Your task to perform on an android device: Search for logitech g910 on target.com, select the first entry, and add it to the cart. Image 0: 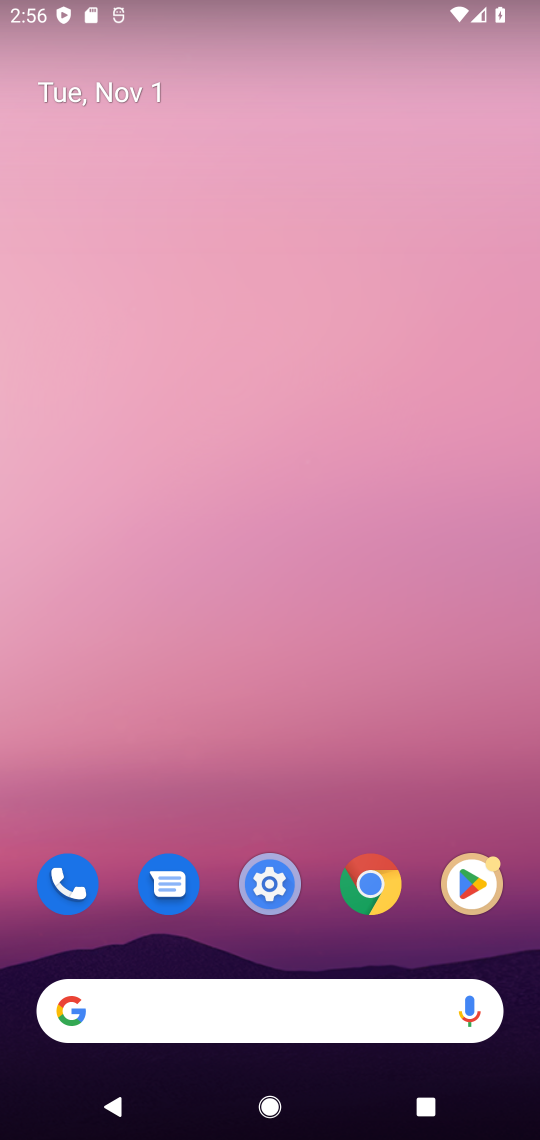
Step 0: click (378, 896)
Your task to perform on an android device: Search for logitech g910 on target.com, select the first entry, and add it to the cart. Image 1: 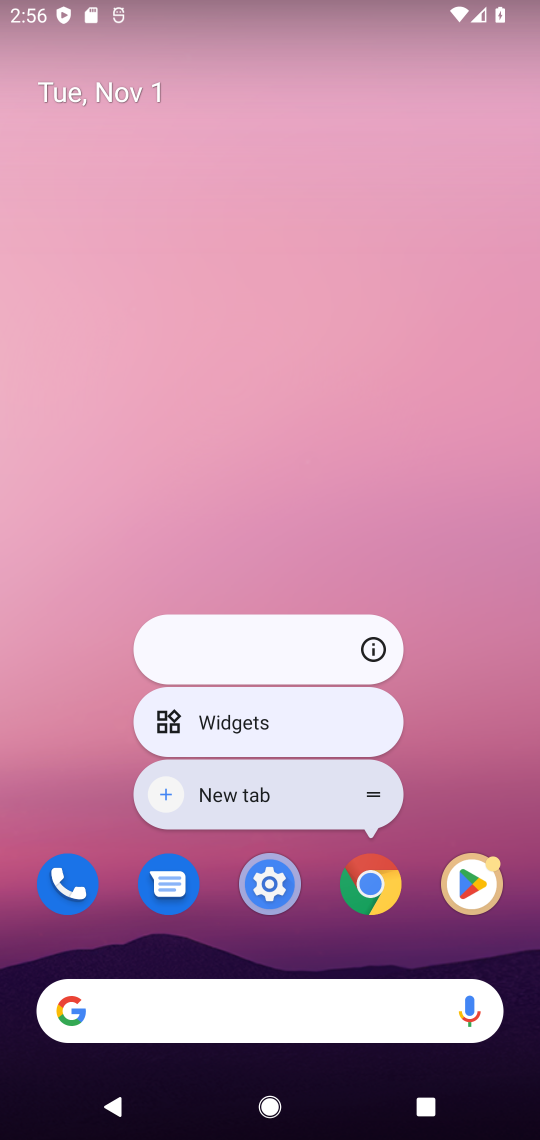
Step 1: click (379, 896)
Your task to perform on an android device: Search for logitech g910 on target.com, select the first entry, and add it to the cart. Image 2: 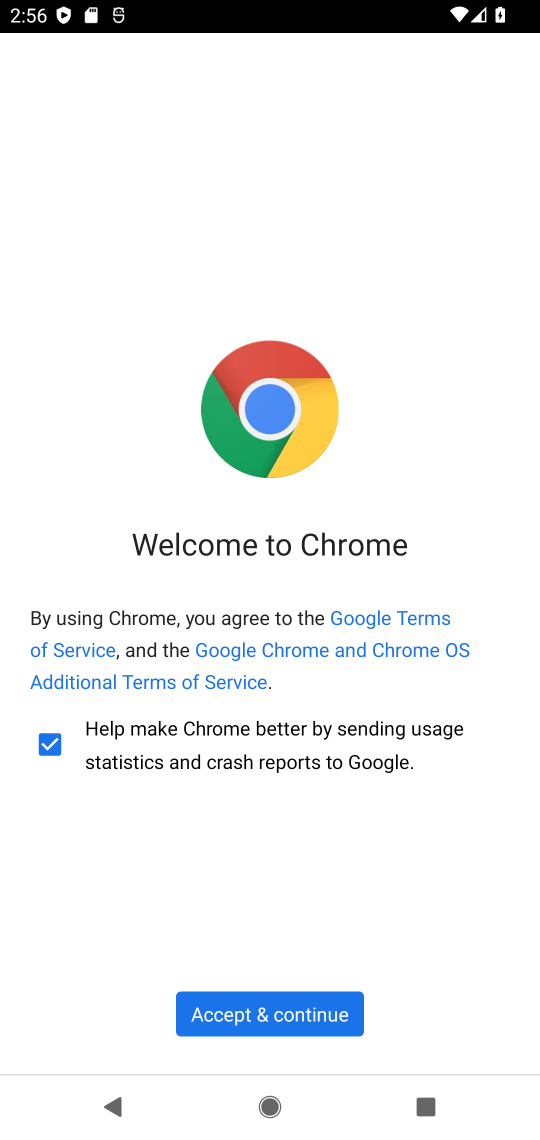
Step 2: click (313, 1015)
Your task to perform on an android device: Search for logitech g910 on target.com, select the first entry, and add it to the cart. Image 3: 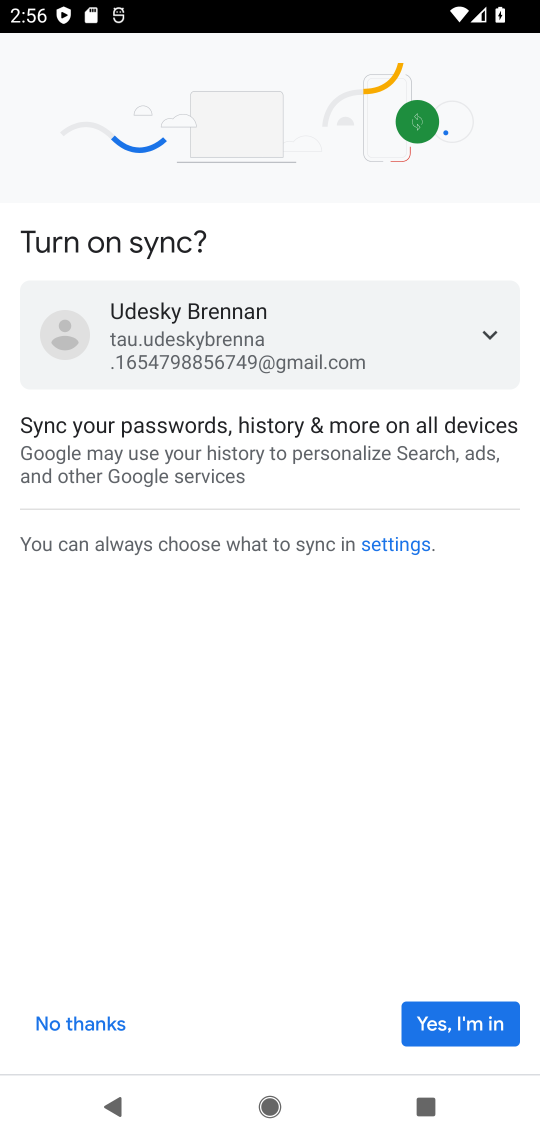
Step 3: click (430, 1027)
Your task to perform on an android device: Search for logitech g910 on target.com, select the first entry, and add it to the cart. Image 4: 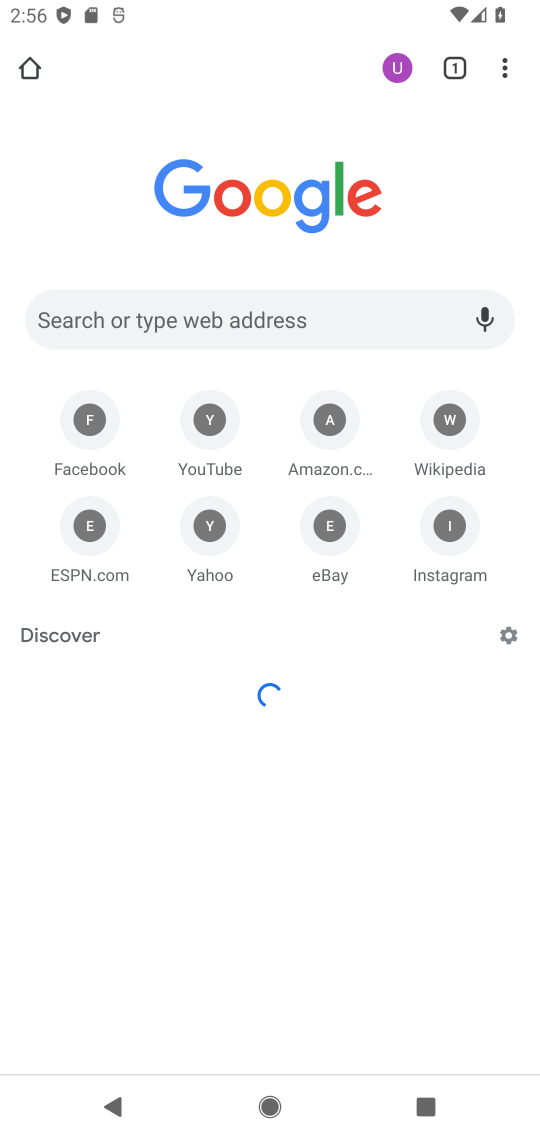
Step 4: click (341, 321)
Your task to perform on an android device: Search for logitech g910 on target.com, select the first entry, and add it to the cart. Image 5: 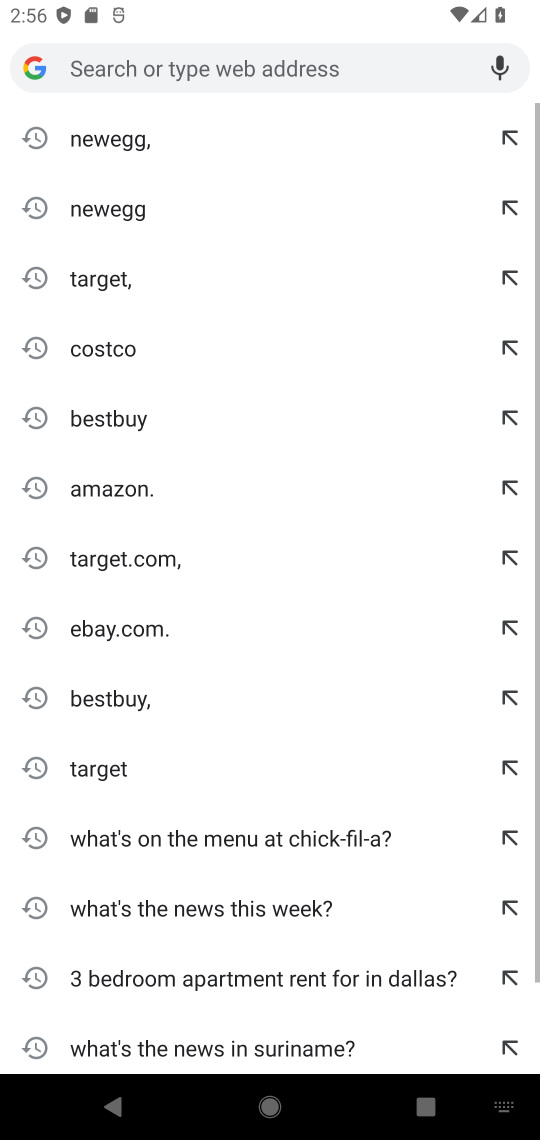
Step 5: press enter
Your task to perform on an android device: Search for logitech g910 on target.com, select the first entry, and add it to the cart. Image 6: 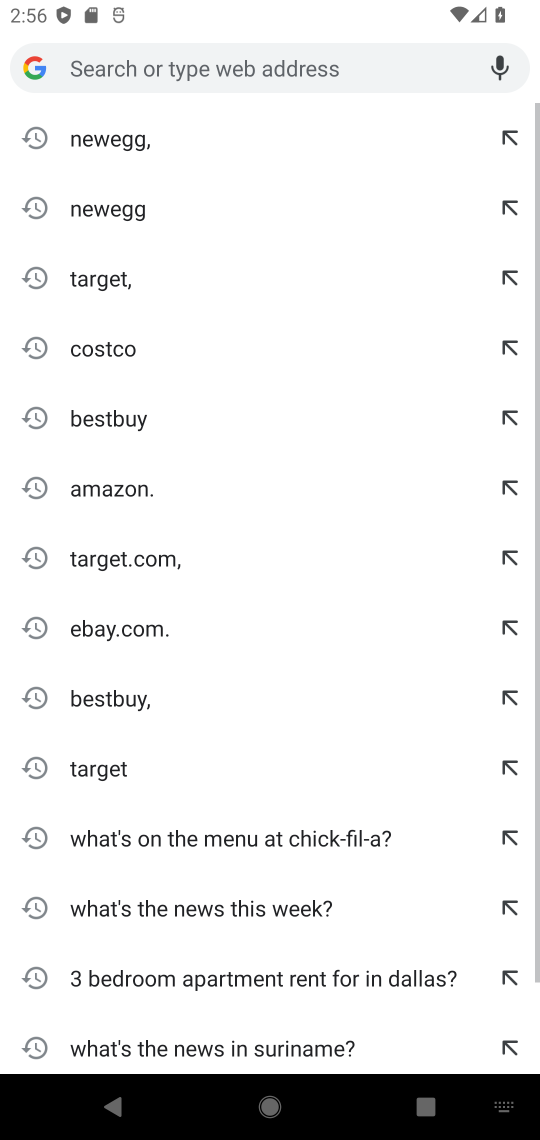
Step 6: type " target.com"
Your task to perform on an android device: Search for logitech g910 on target.com, select the first entry, and add it to the cart. Image 7: 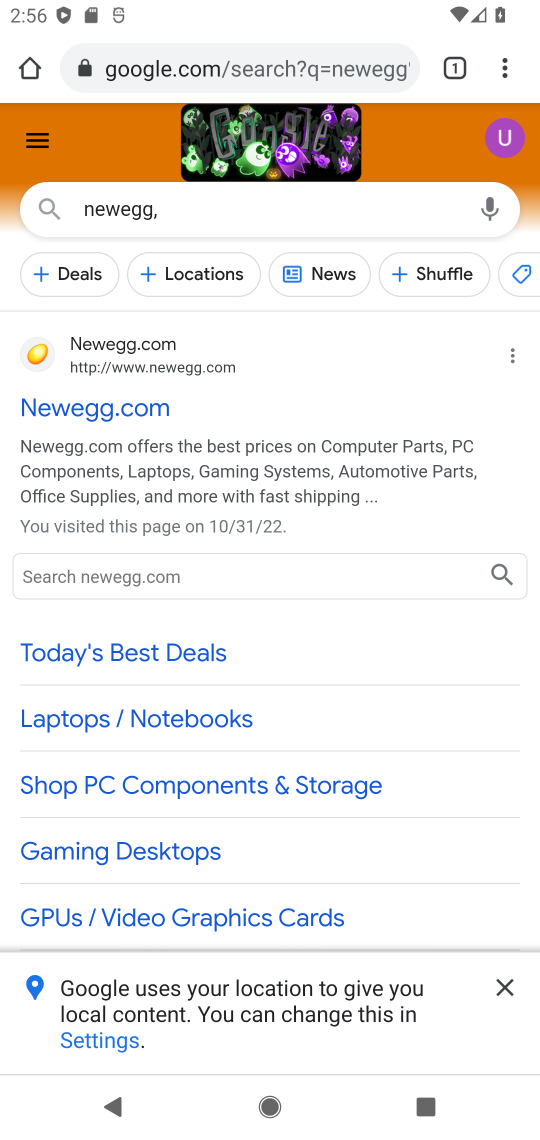
Step 7: click (114, 343)
Your task to perform on an android device: Search for logitech g910 on target.com, select the first entry, and add it to the cart. Image 8: 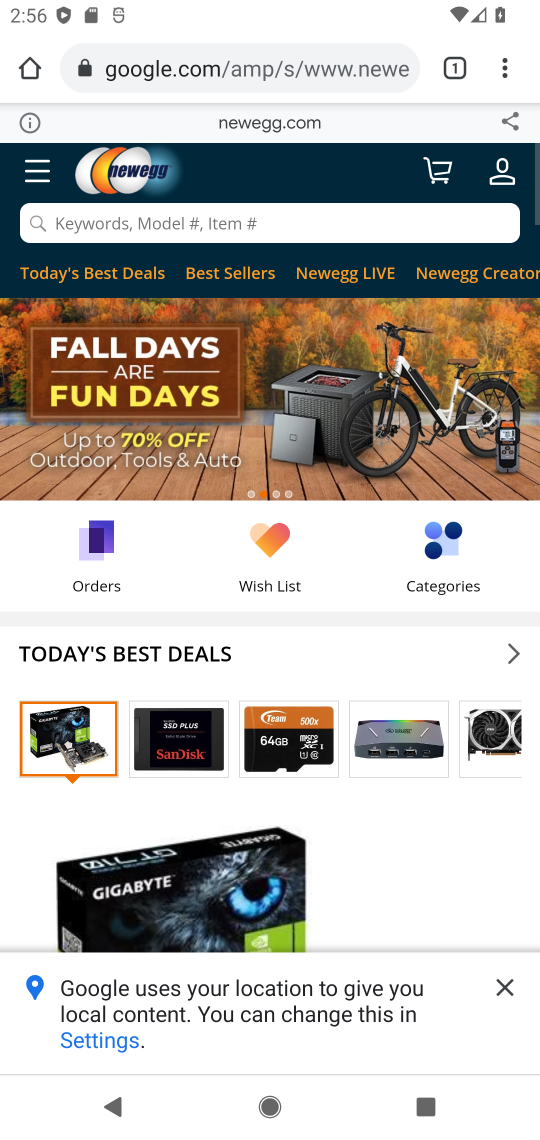
Step 8: click (289, 70)
Your task to perform on an android device: Search for logitech g910 on target.com, select the first entry, and add it to the cart. Image 9: 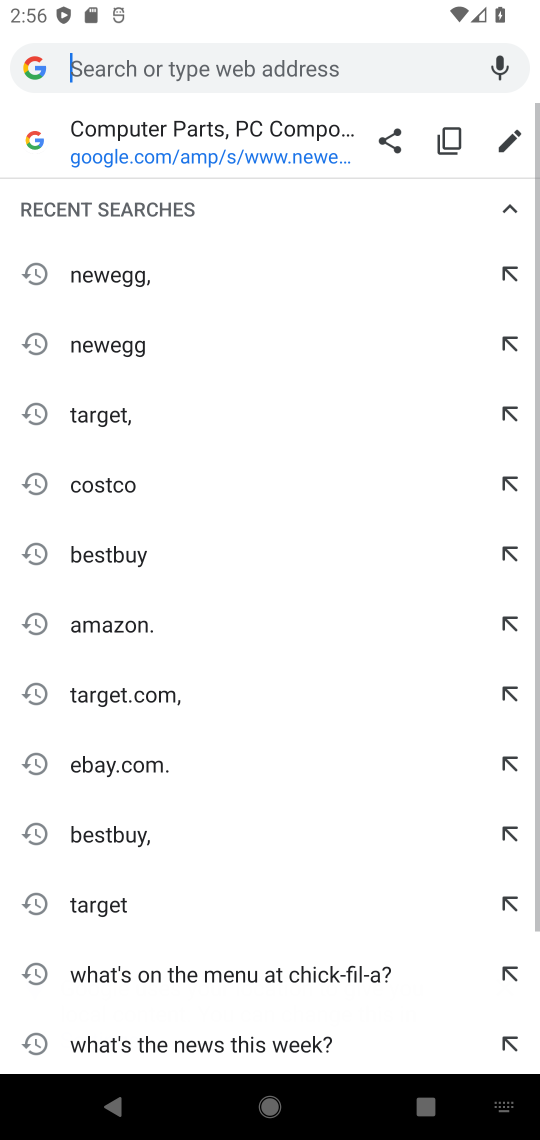
Step 9: type "target.com"
Your task to perform on an android device: Search for logitech g910 on target.com, select the first entry, and add it to the cart. Image 10: 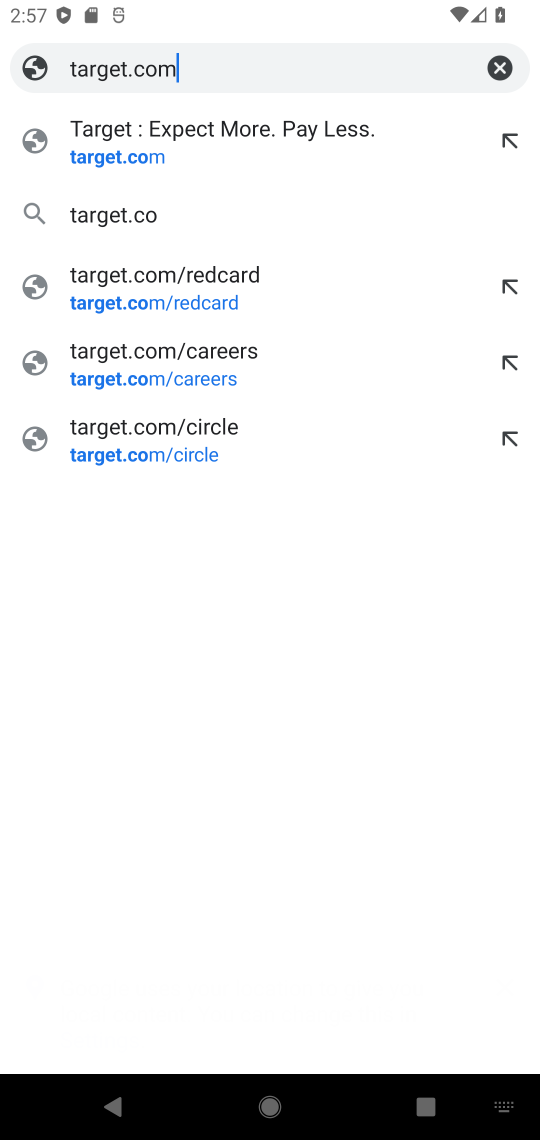
Step 10: press enter
Your task to perform on an android device: Search for logitech g910 on target.com, select the first entry, and add it to the cart. Image 11: 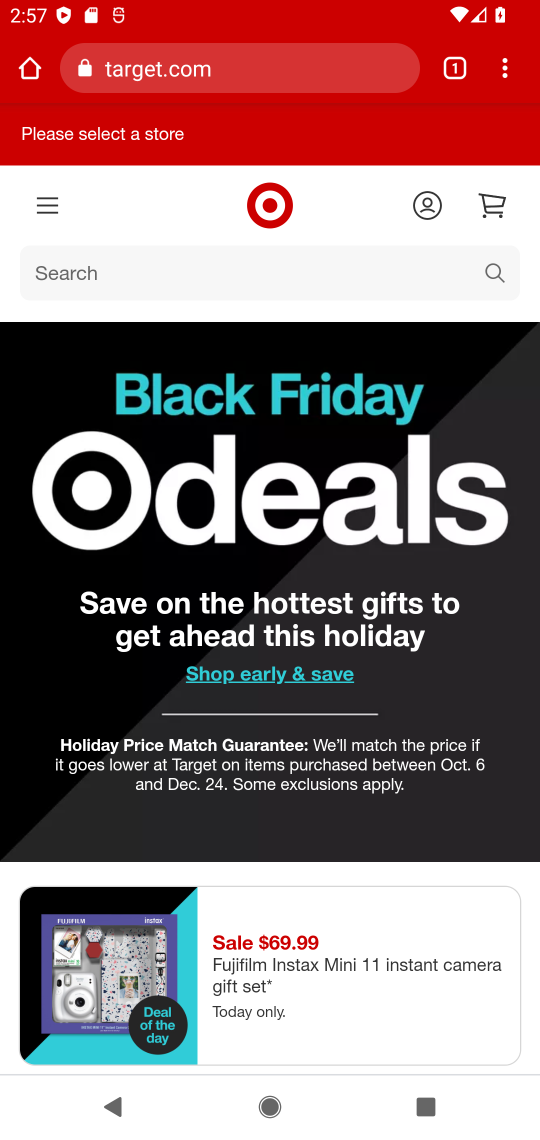
Step 11: click (296, 255)
Your task to perform on an android device: Search for logitech g910 on target.com, select the first entry, and add it to the cart. Image 12: 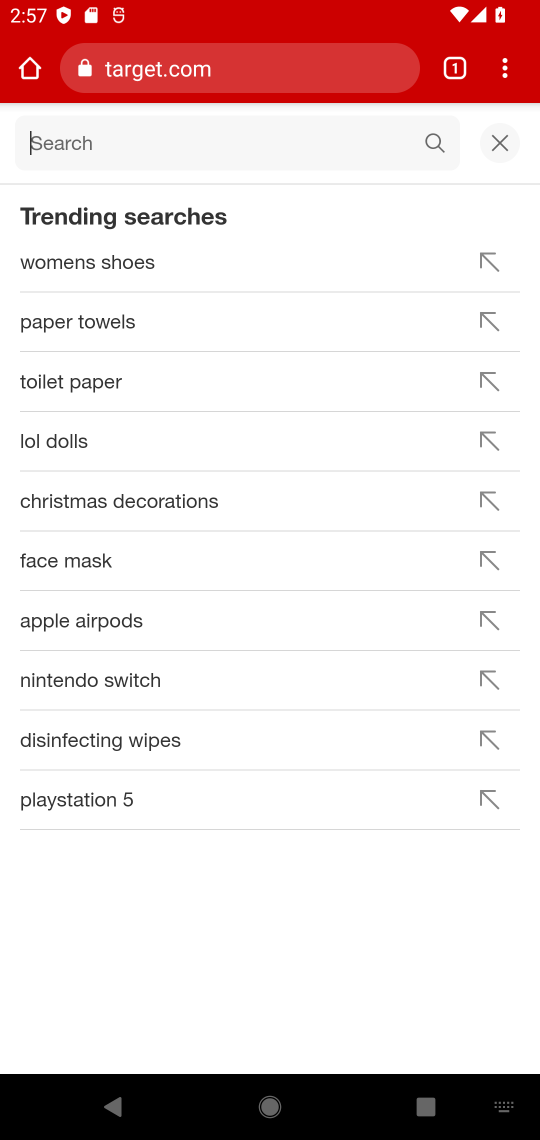
Step 12: type " logitech g910"
Your task to perform on an android device: Search for logitech g910 on target.com, select the first entry, and add it to the cart. Image 13: 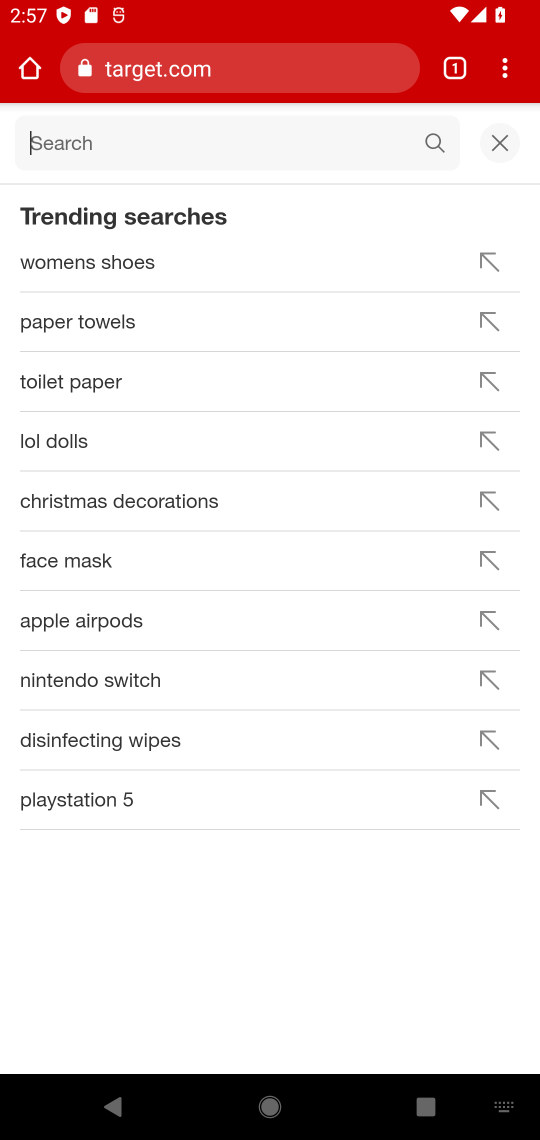
Step 13: press enter
Your task to perform on an android device: Search for logitech g910 on target.com, select the first entry, and add it to the cart. Image 14: 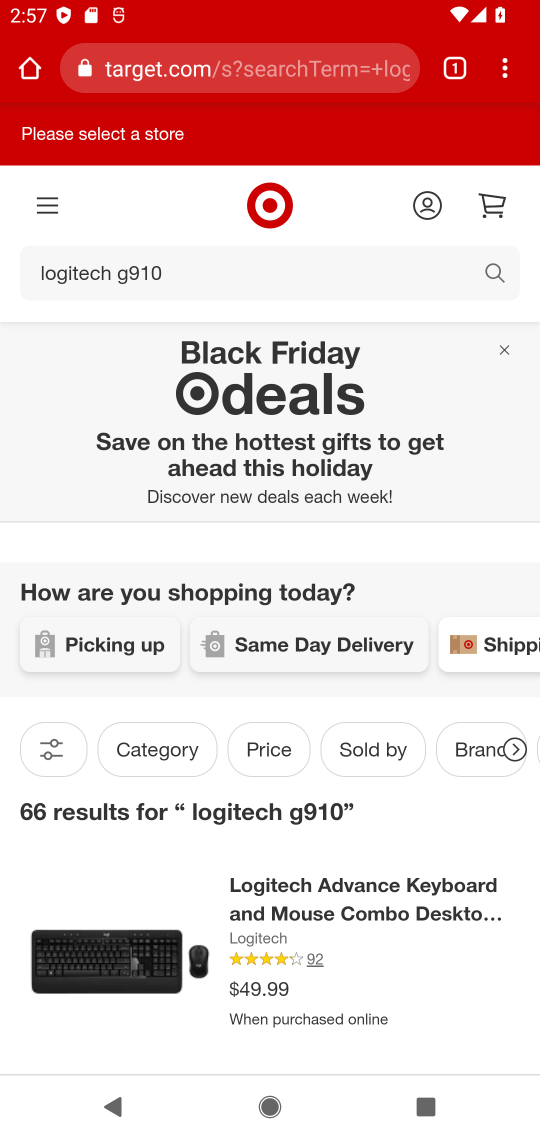
Step 14: drag from (351, 893) to (411, 628)
Your task to perform on an android device: Search for logitech g910 on target.com, select the first entry, and add it to the cart. Image 15: 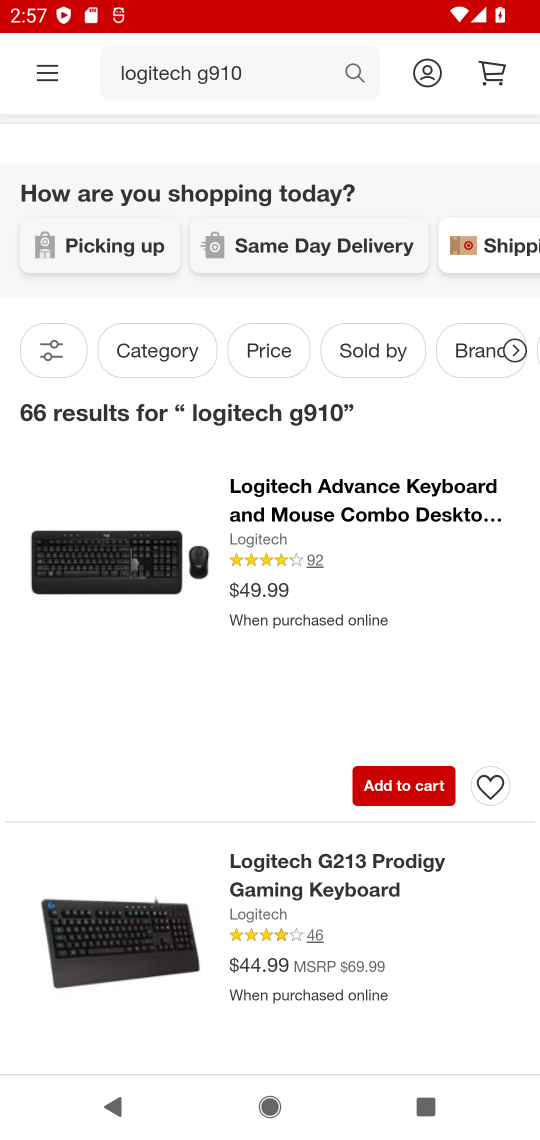
Step 15: click (124, 541)
Your task to perform on an android device: Search for logitech g910 on target.com, select the first entry, and add it to the cart. Image 16: 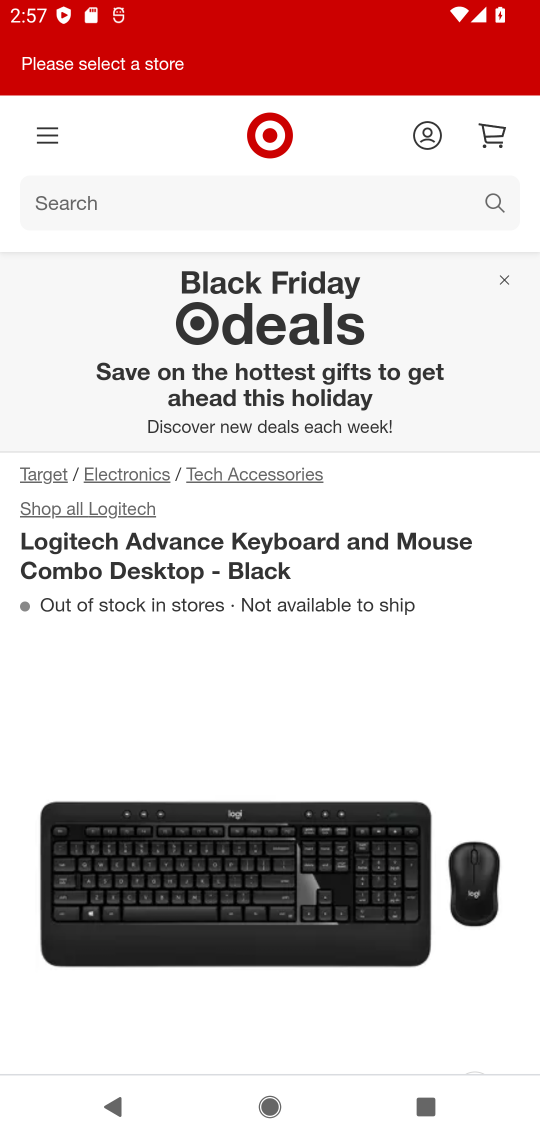
Step 16: drag from (321, 719) to (349, 492)
Your task to perform on an android device: Search for logitech g910 on target.com, select the first entry, and add it to the cart. Image 17: 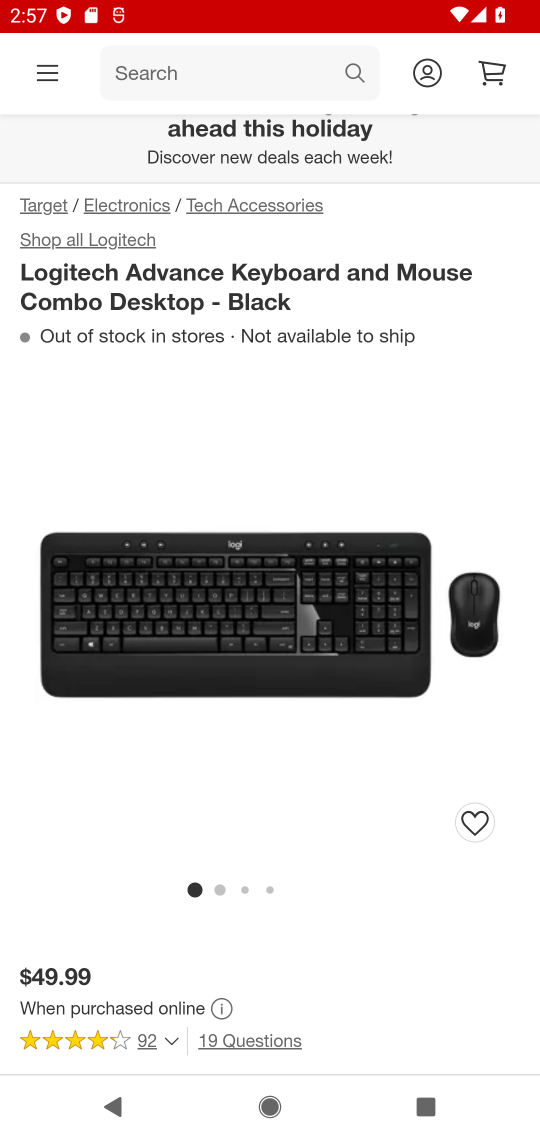
Step 17: drag from (295, 808) to (293, 379)
Your task to perform on an android device: Search for logitech g910 on target.com, select the first entry, and add it to the cart. Image 18: 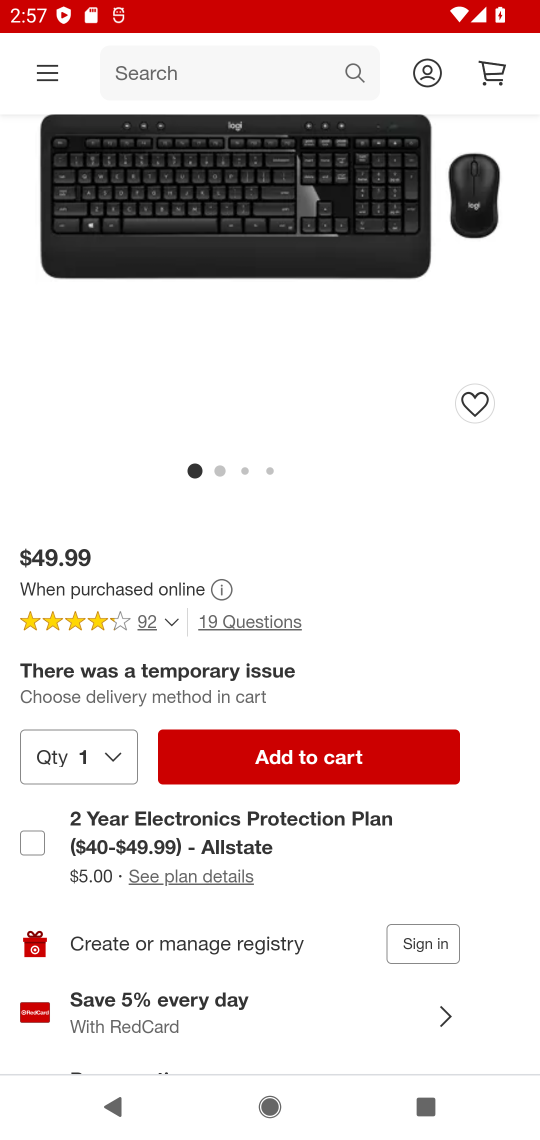
Step 18: click (335, 763)
Your task to perform on an android device: Search for logitech g910 on target.com, select the first entry, and add it to the cart. Image 19: 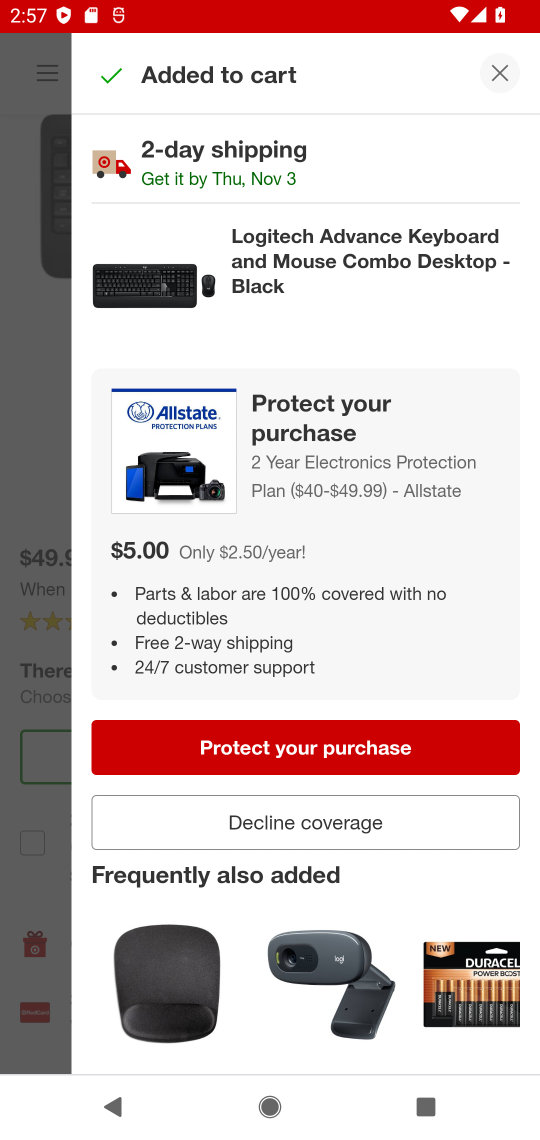
Step 19: click (499, 67)
Your task to perform on an android device: Search for logitech g910 on target.com, select the first entry, and add it to the cart. Image 20: 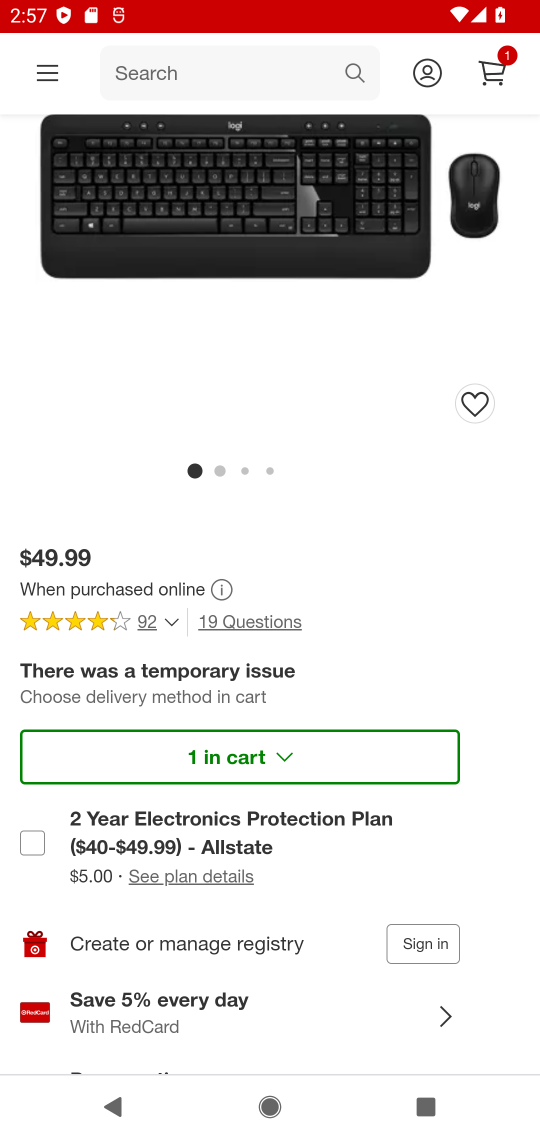
Step 20: task complete